Your task to perform on an android device: Go to display settings Image 0: 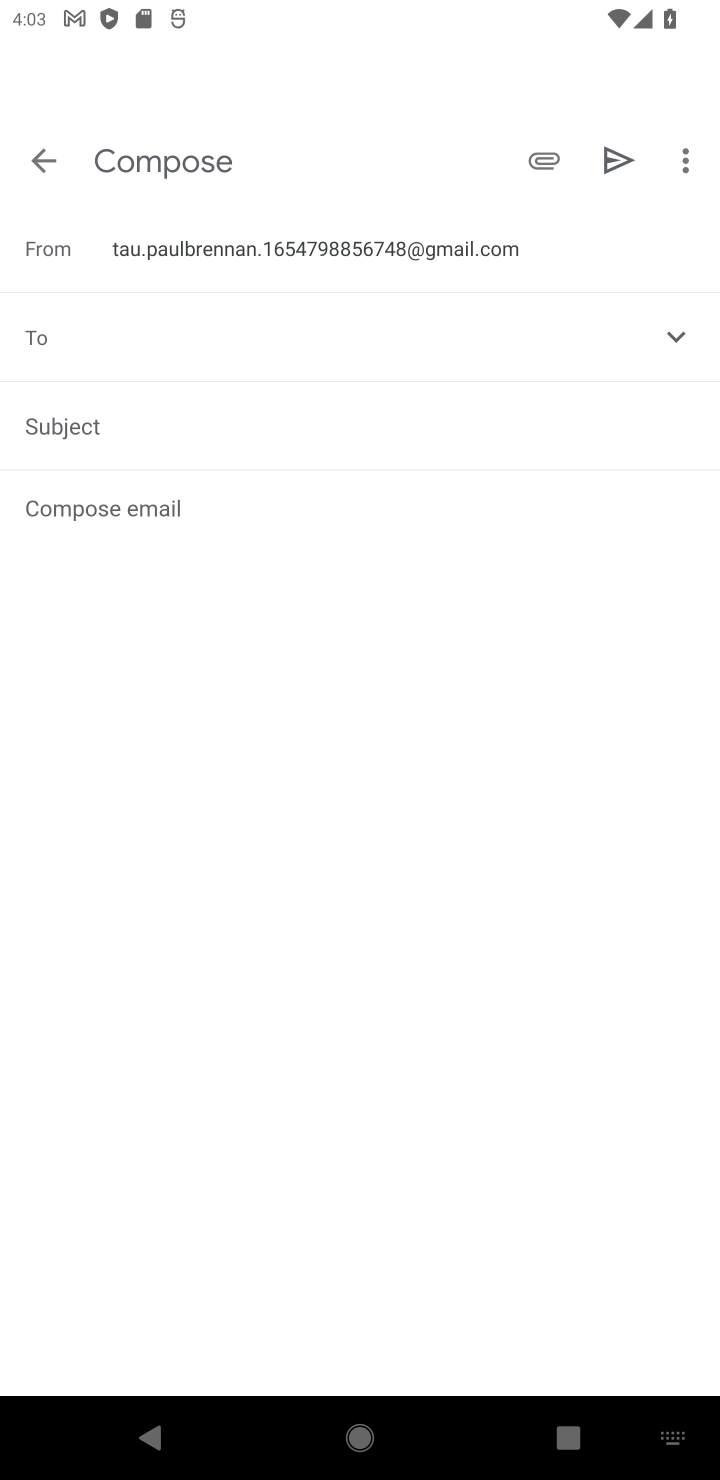
Step 0: press home button
Your task to perform on an android device: Go to display settings Image 1: 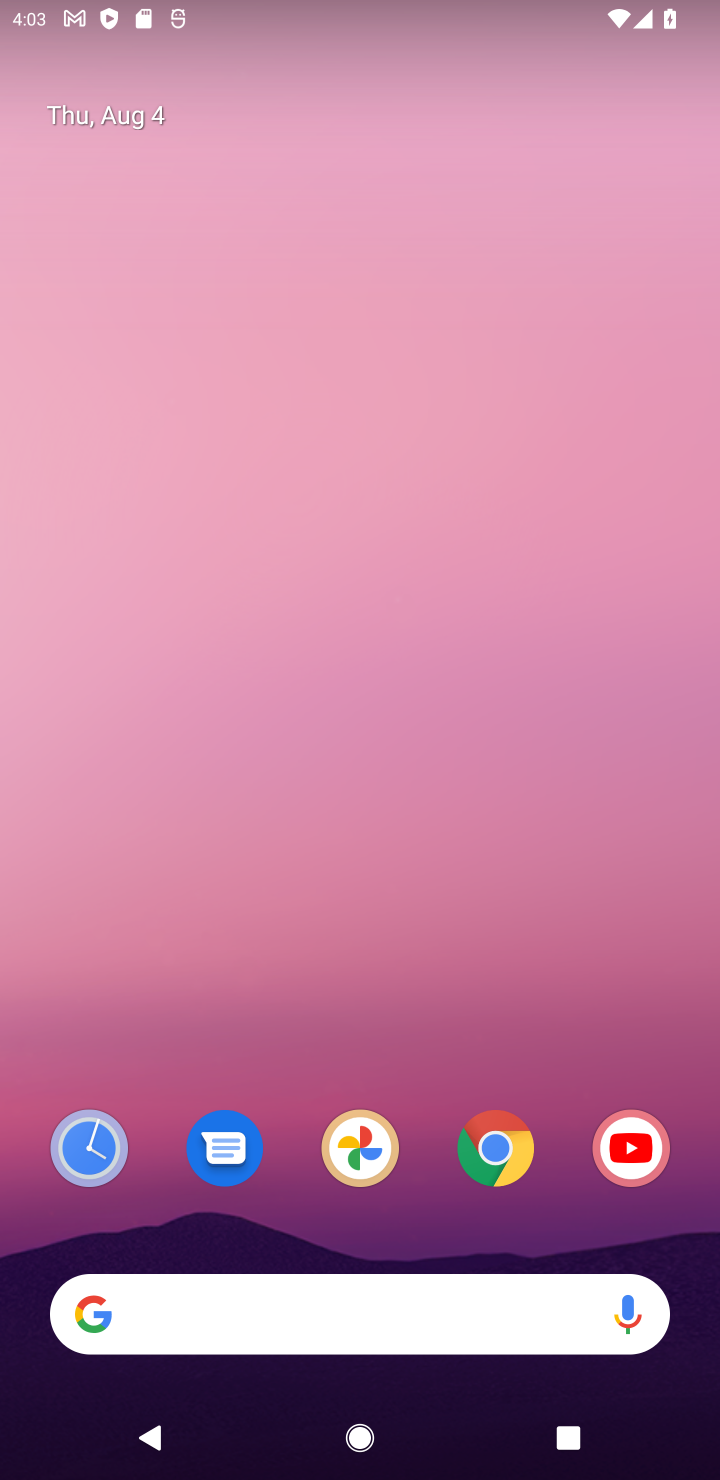
Step 1: drag from (574, 1222) to (470, 181)
Your task to perform on an android device: Go to display settings Image 2: 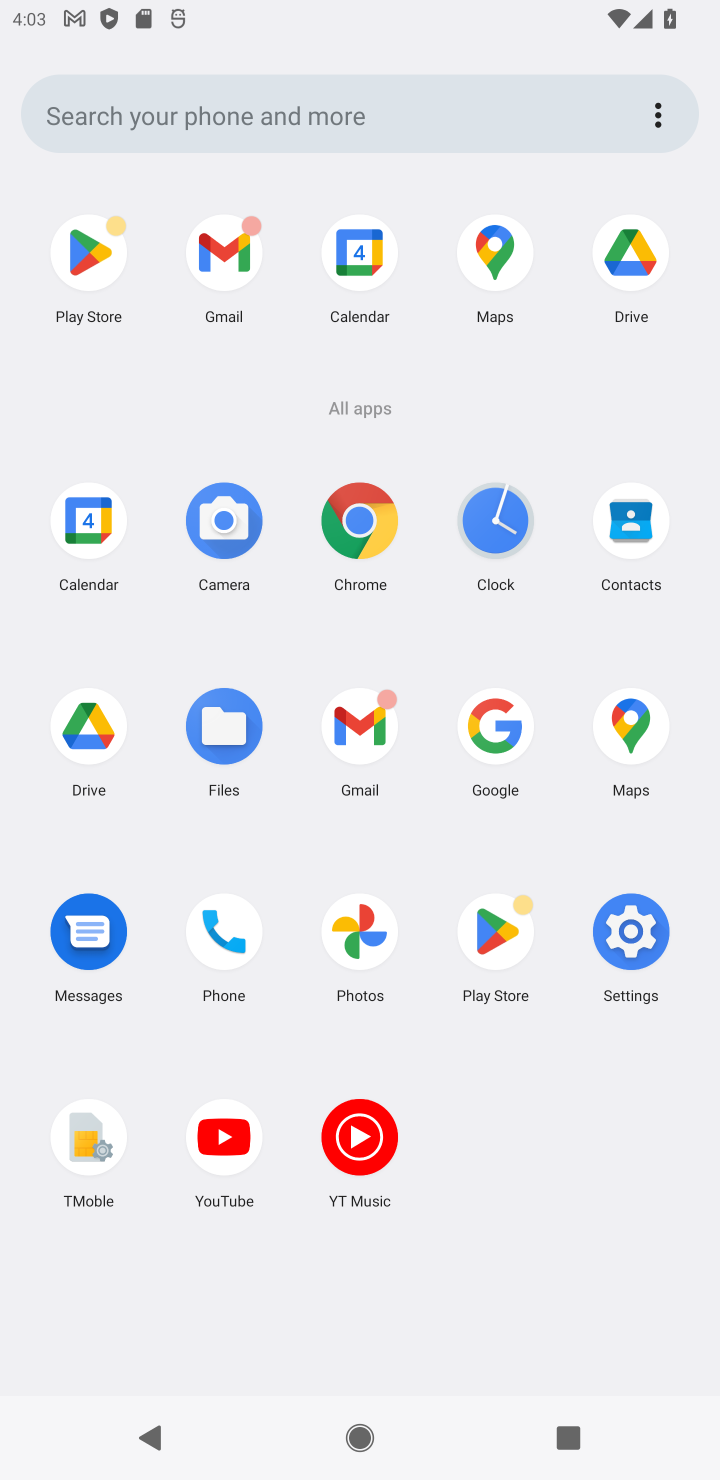
Step 2: click (627, 936)
Your task to perform on an android device: Go to display settings Image 3: 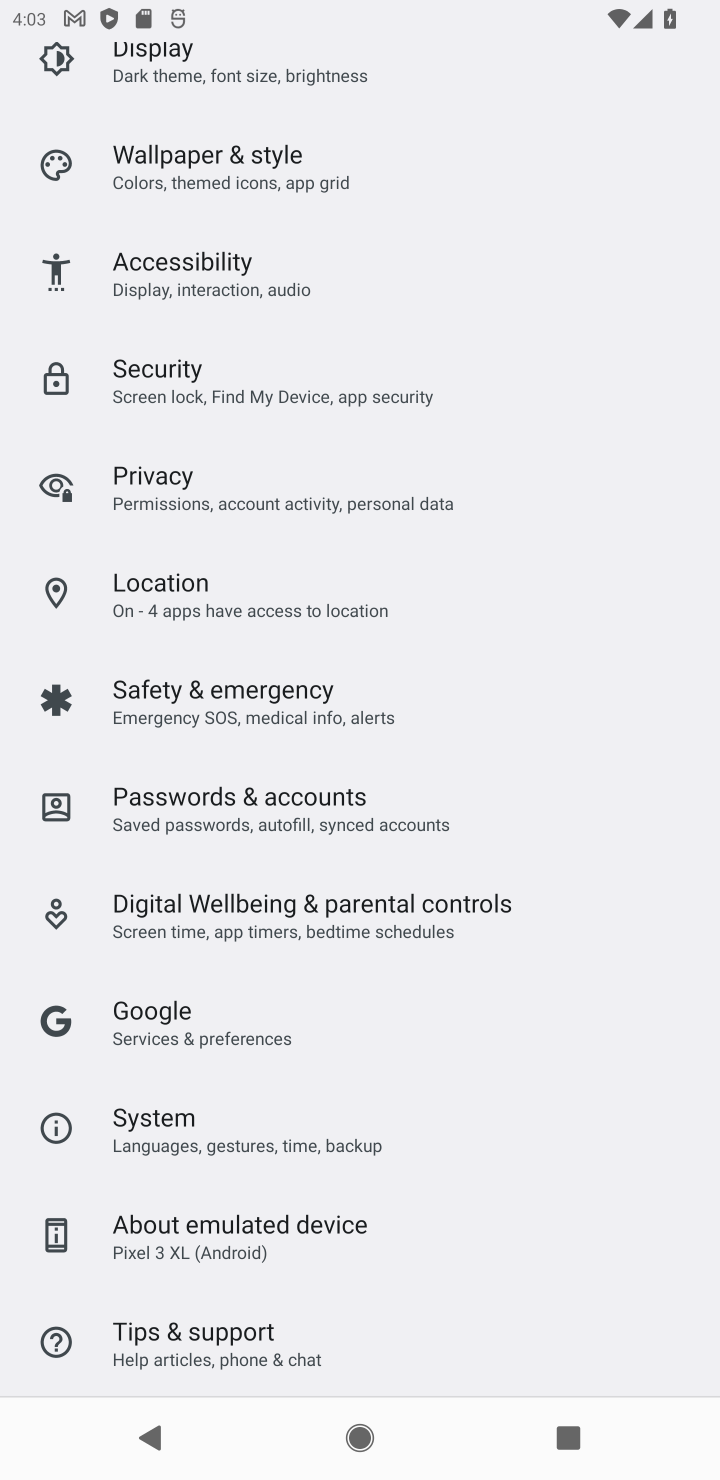
Step 3: drag from (550, 355) to (546, 743)
Your task to perform on an android device: Go to display settings Image 4: 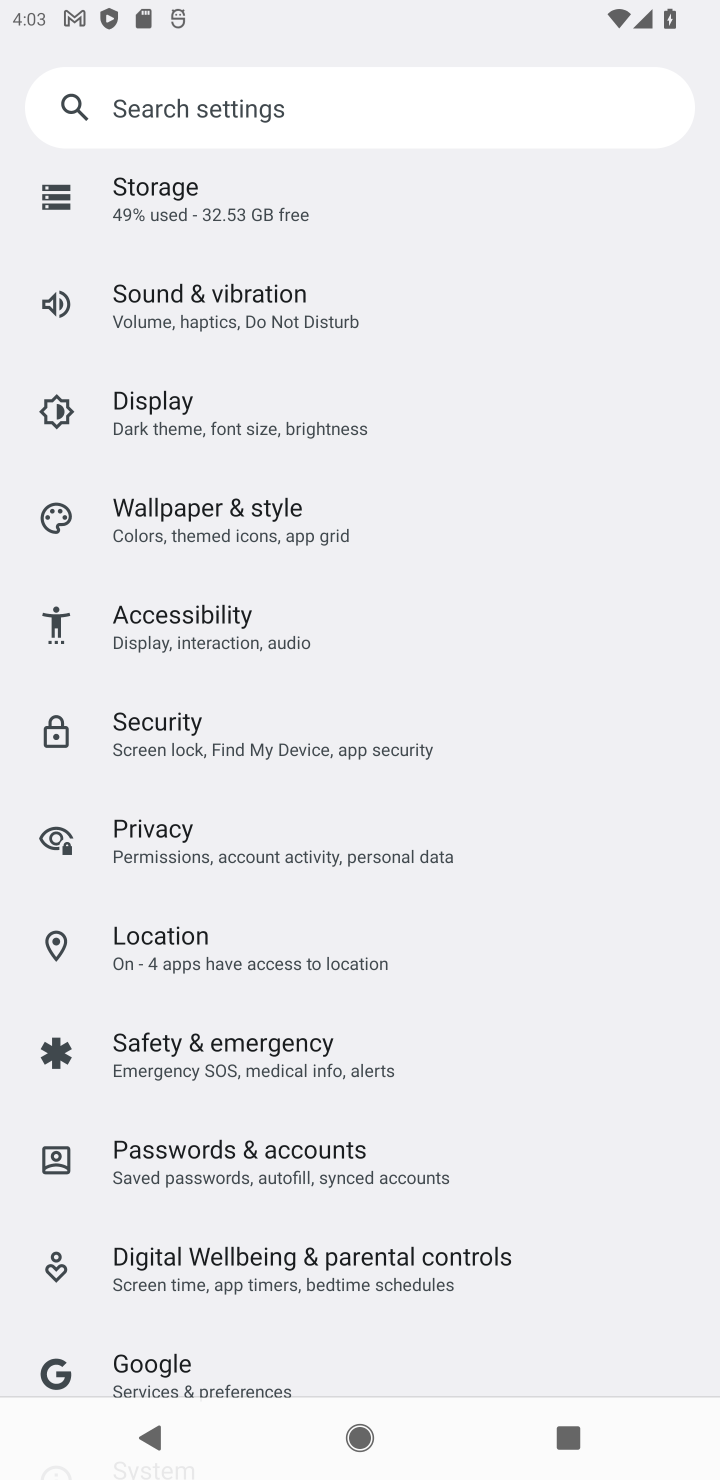
Step 4: click (142, 400)
Your task to perform on an android device: Go to display settings Image 5: 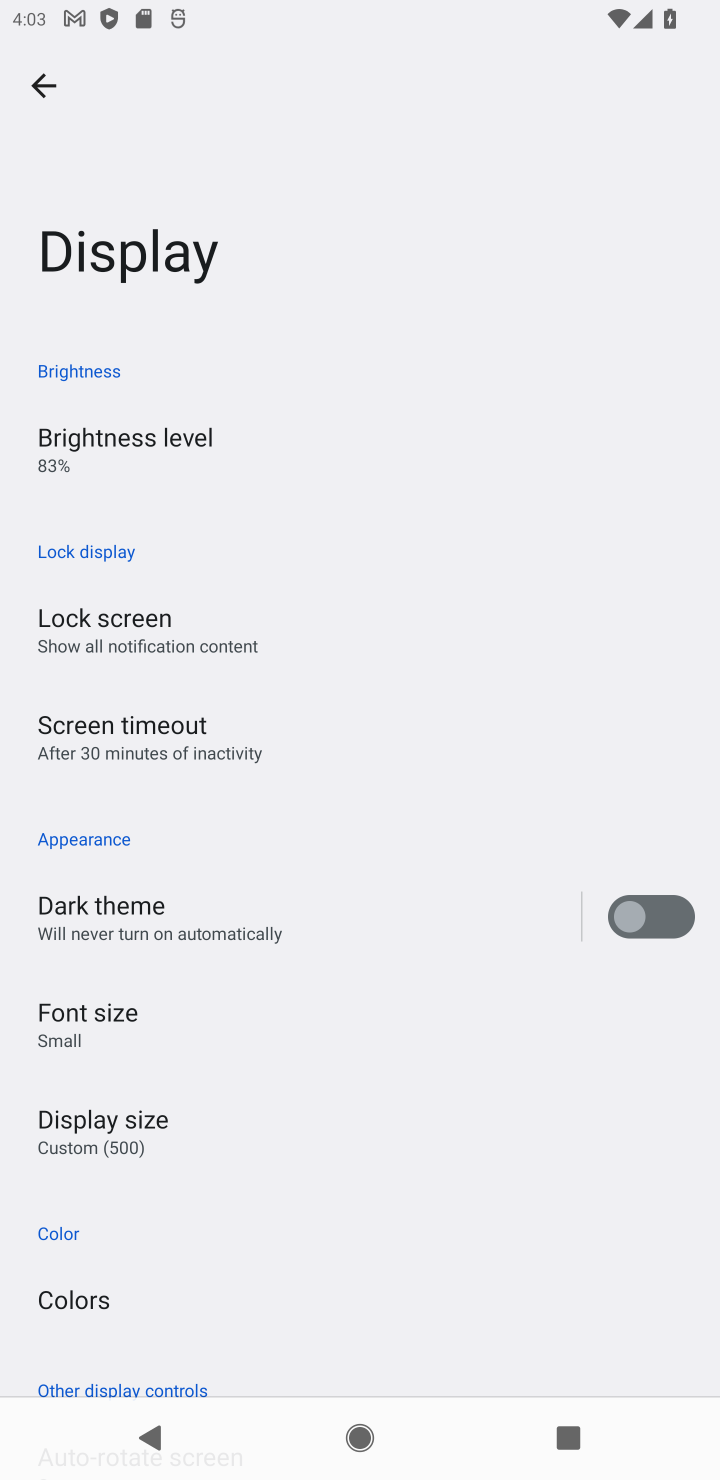
Step 5: task complete